Your task to perform on an android device: make emails show in primary in the gmail app Image 0: 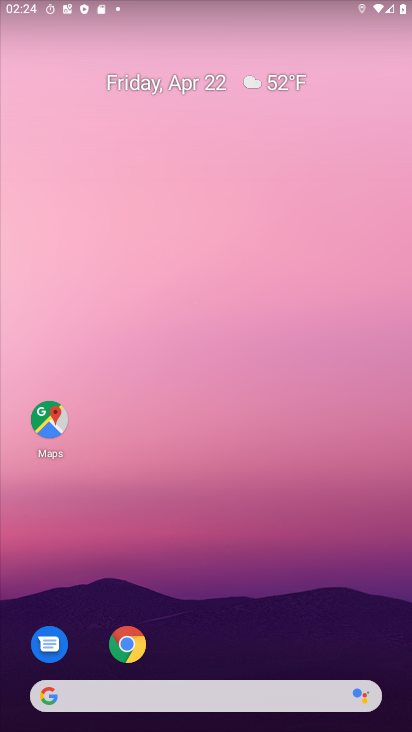
Step 0: drag from (261, 363) to (180, 127)
Your task to perform on an android device: make emails show in primary in the gmail app Image 1: 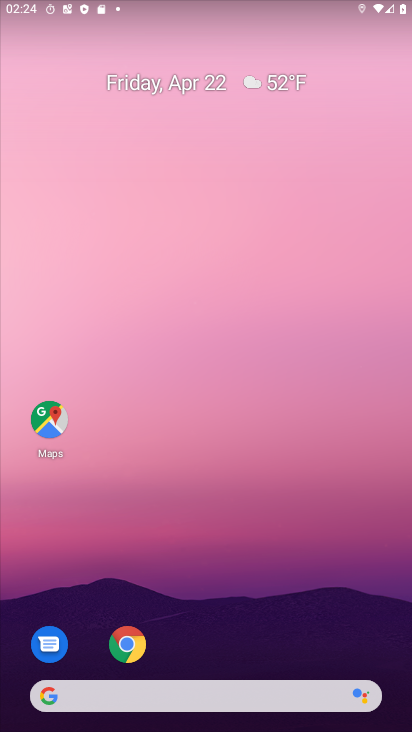
Step 1: drag from (210, 624) to (216, 181)
Your task to perform on an android device: make emails show in primary in the gmail app Image 2: 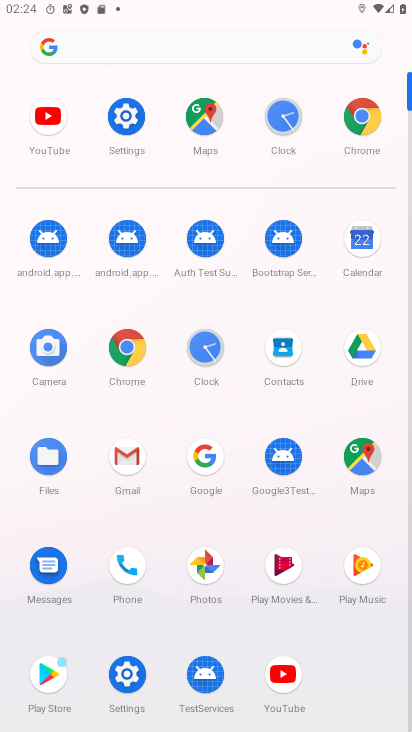
Step 2: click (123, 472)
Your task to perform on an android device: make emails show in primary in the gmail app Image 3: 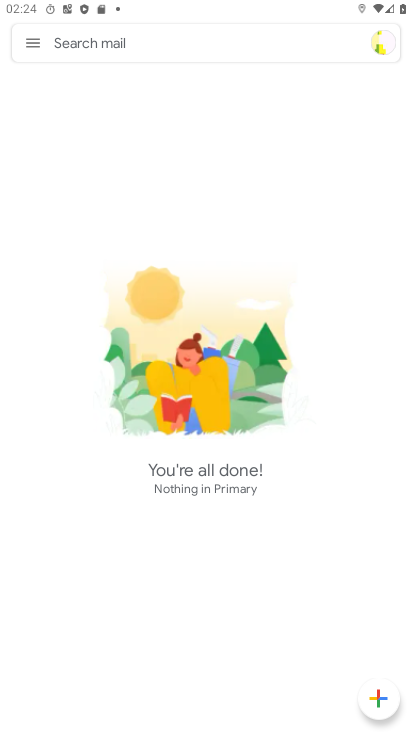
Step 3: click (40, 40)
Your task to perform on an android device: make emails show in primary in the gmail app Image 4: 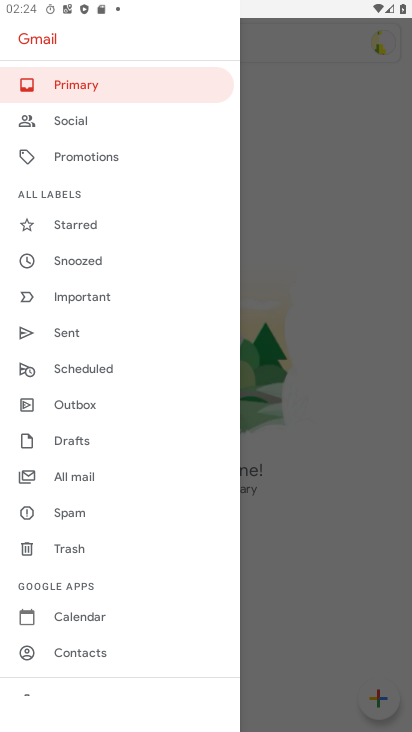
Step 4: drag from (93, 639) to (66, 369)
Your task to perform on an android device: make emails show in primary in the gmail app Image 5: 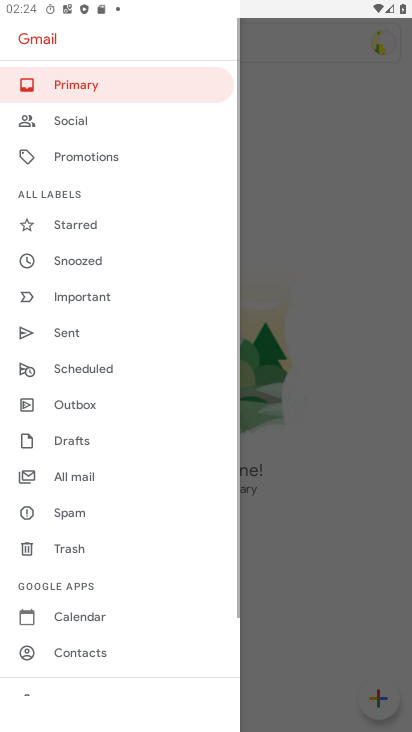
Step 5: drag from (84, 646) to (133, 393)
Your task to perform on an android device: make emails show in primary in the gmail app Image 6: 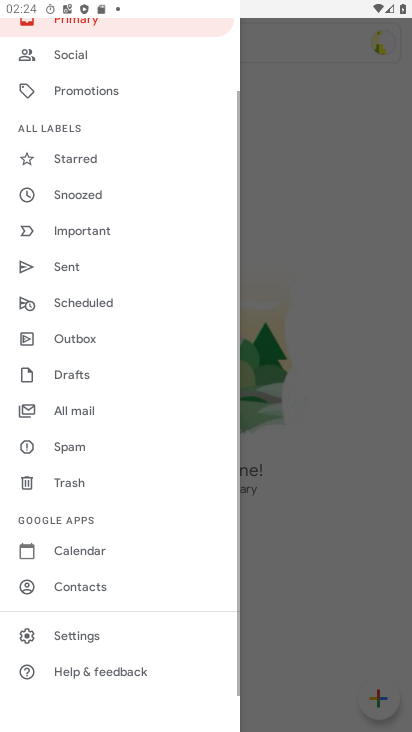
Step 6: click (86, 632)
Your task to perform on an android device: make emails show in primary in the gmail app Image 7: 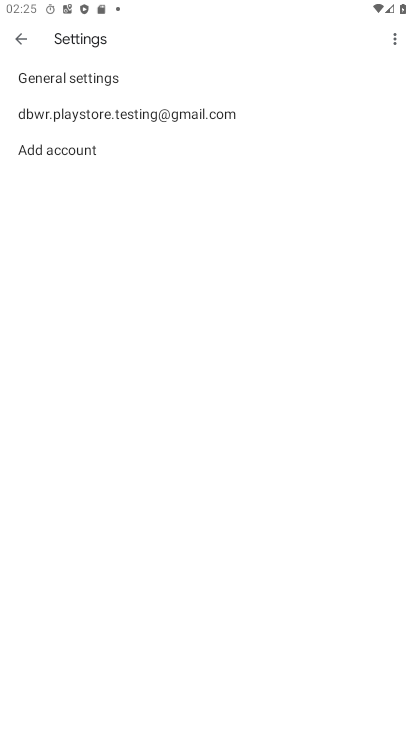
Step 7: click (133, 119)
Your task to perform on an android device: make emails show in primary in the gmail app Image 8: 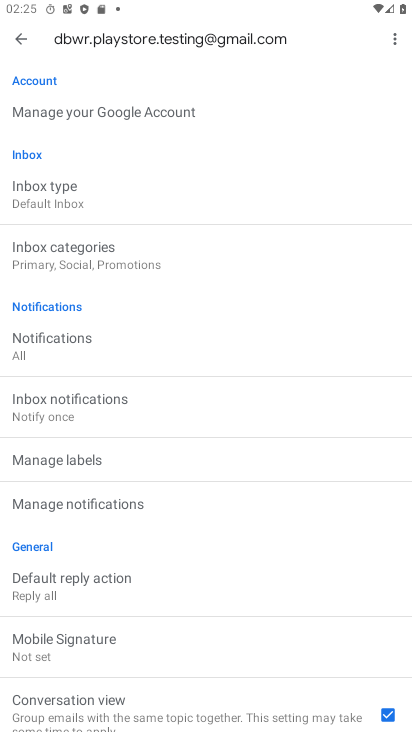
Step 8: click (79, 252)
Your task to perform on an android device: make emails show in primary in the gmail app Image 9: 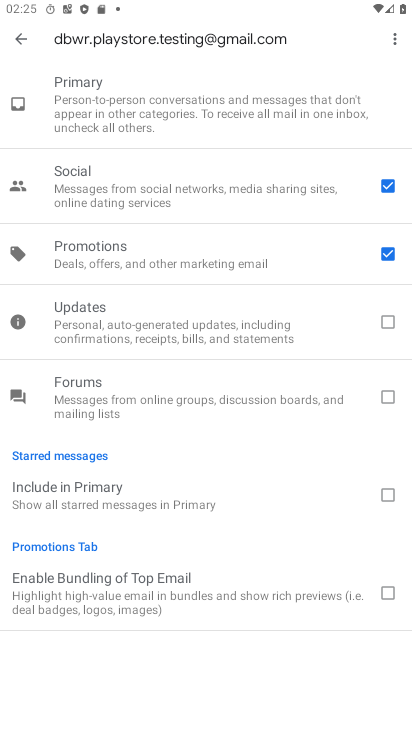
Step 9: click (383, 255)
Your task to perform on an android device: make emails show in primary in the gmail app Image 10: 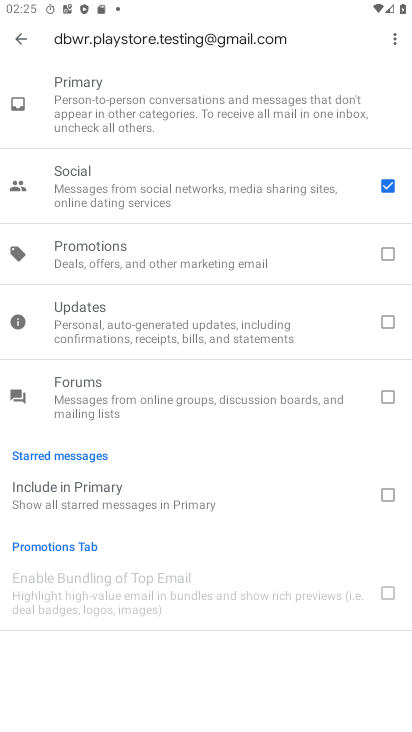
Step 10: click (390, 190)
Your task to perform on an android device: make emails show in primary in the gmail app Image 11: 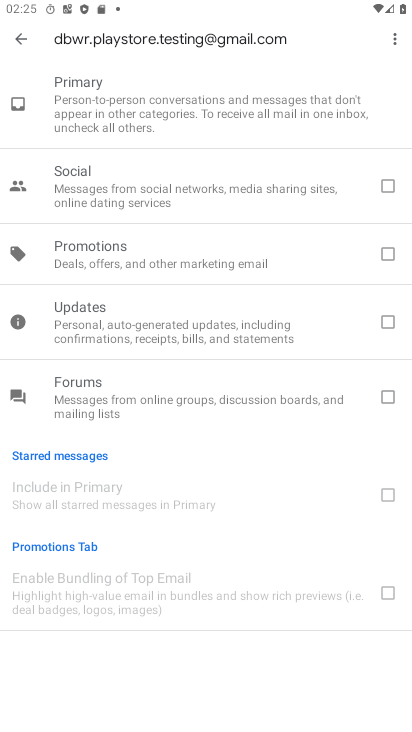
Step 11: task complete